Your task to perform on an android device: Show me popular videos on Youtube Image 0: 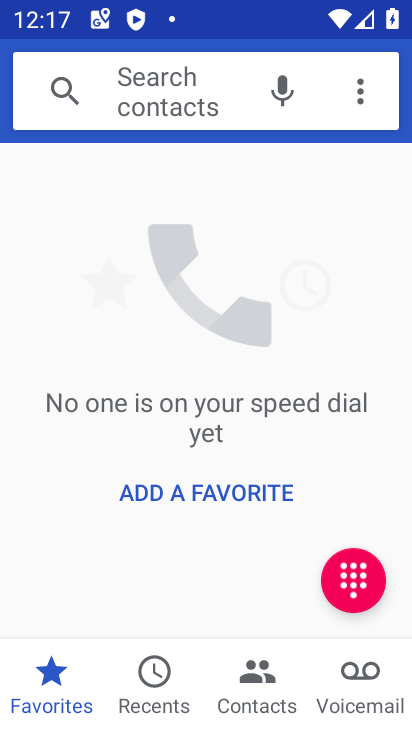
Step 0: press back button
Your task to perform on an android device: Show me popular videos on Youtube Image 1: 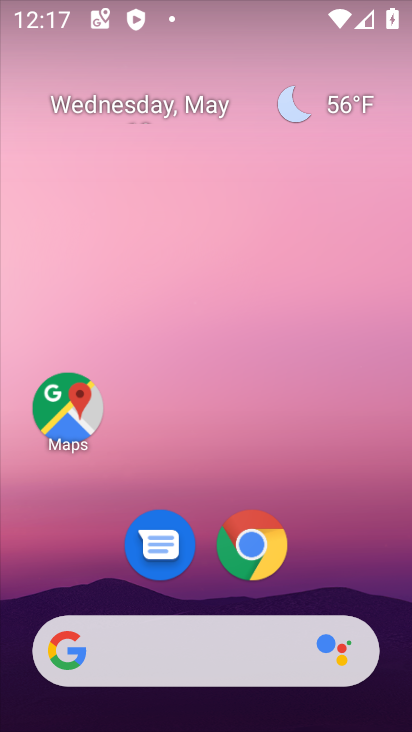
Step 1: drag from (335, 550) to (290, 151)
Your task to perform on an android device: Show me popular videos on Youtube Image 2: 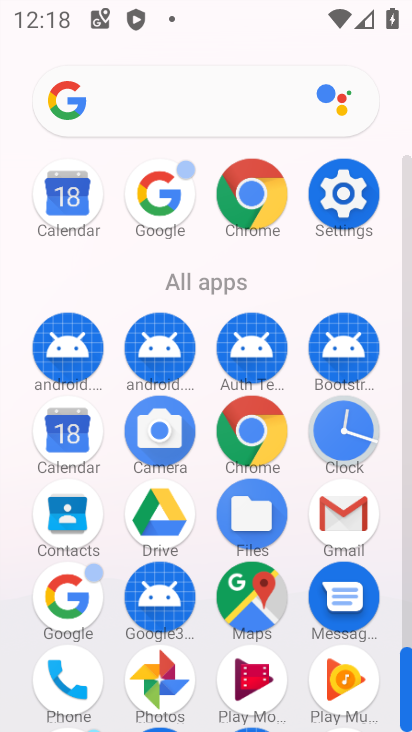
Step 2: drag from (295, 565) to (279, 250)
Your task to perform on an android device: Show me popular videos on Youtube Image 3: 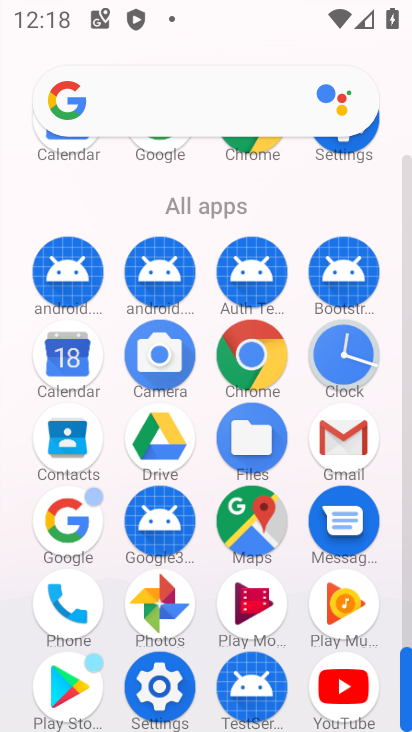
Step 3: click (342, 684)
Your task to perform on an android device: Show me popular videos on Youtube Image 4: 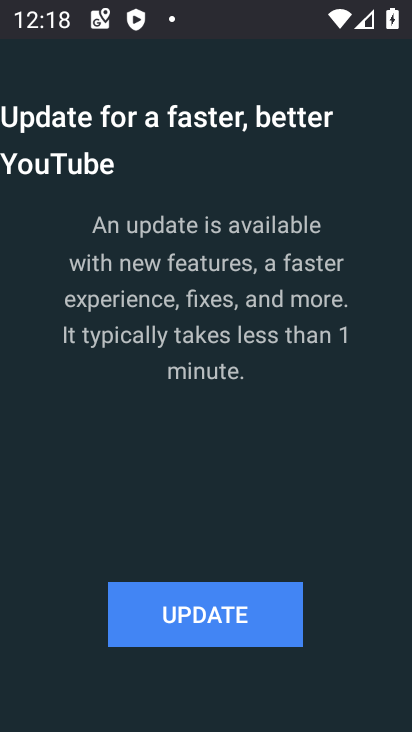
Step 4: click (213, 624)
Your task to perform on an android device: Show me popular videos on Youtube Image 5: 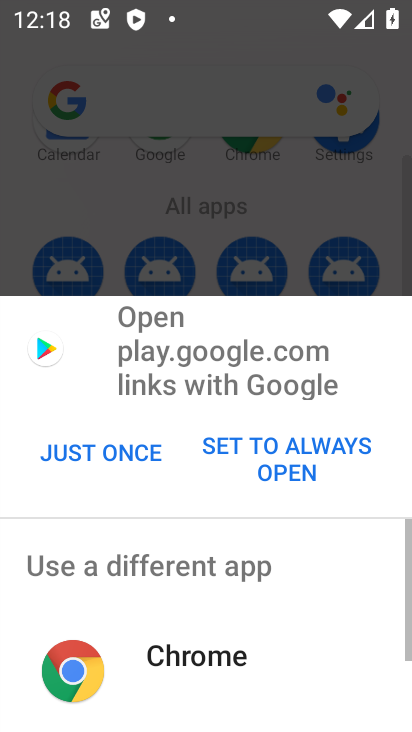
Step 5: click (134, 448)
Your task to perform on an android device: Show me popular videos on Youtube Image 6: 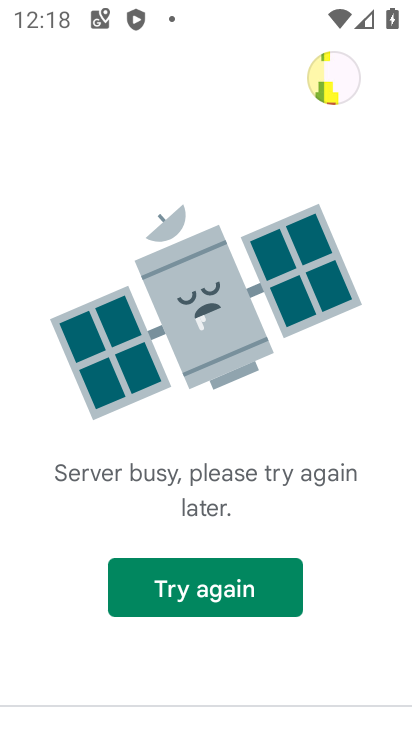
Step 6: click (193, 574)
Your task to perform on an android device: Show me popular videos on Youtube Image 7: 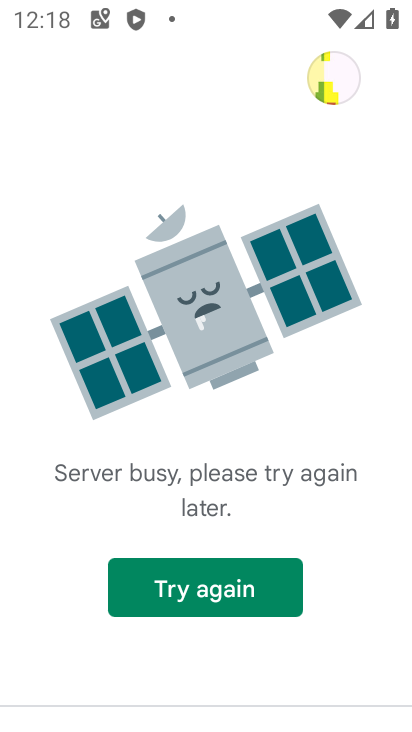
Step 7: task complete